Your task to perform on an android device: delete browsing data in the chrome app Image 0: 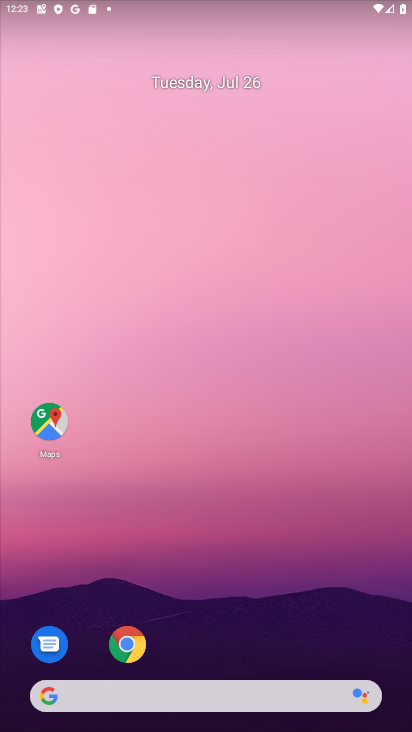
Step 0: click (141, 651)
Your task to perform on an android device: delete browsing data in the chrome app Image 1: 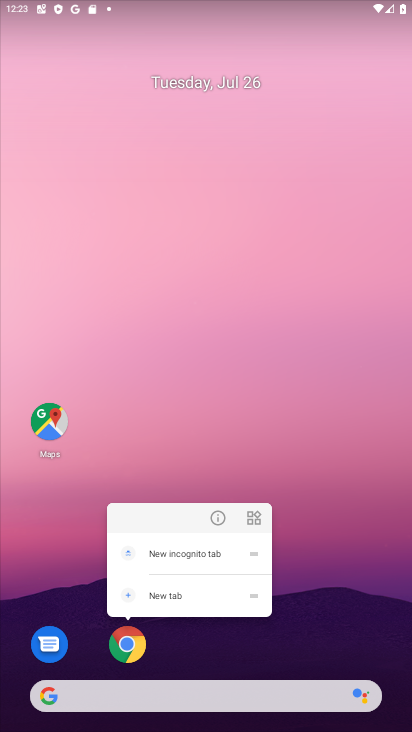
Step 1: click (139, 650)
Your task to perform on an android device: delete browsing data in the chrome app Image 2: 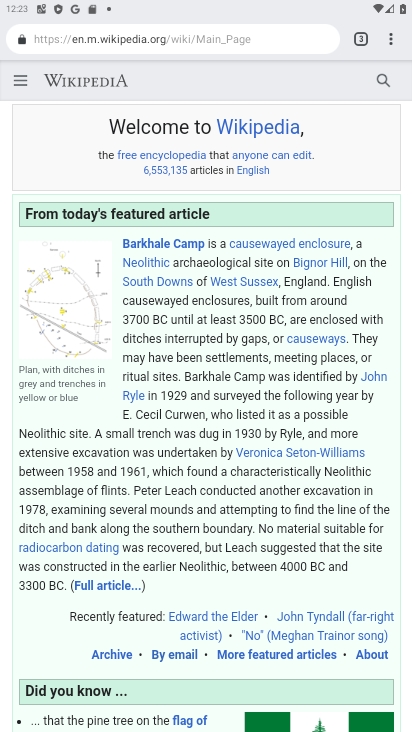
Step 2: drag from (393, 38) to (265, 471)
Your task to perform on an android device: delete browsing data in the chrome app Image 3: 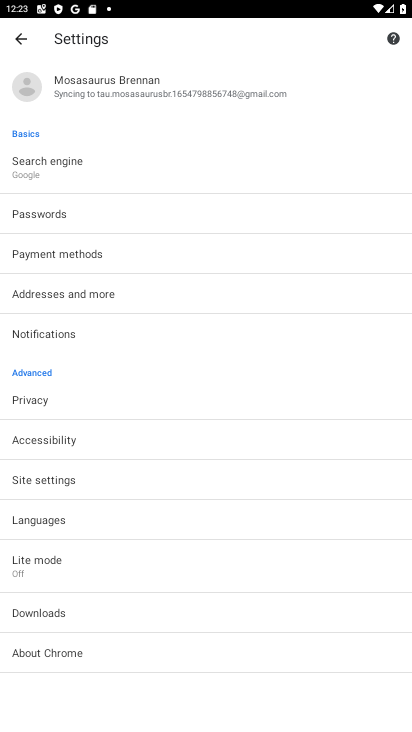
Step 3: click (64, 405)
Your task to perform on an android device: delete browsing data in the chrome app Image 4: 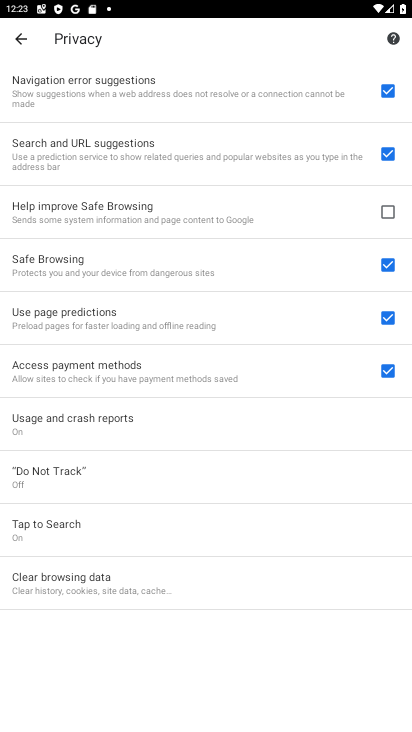
Step 4: click (89, 575)
Your task to perform on an android device: delete browsing data in the chrome app Image 5: 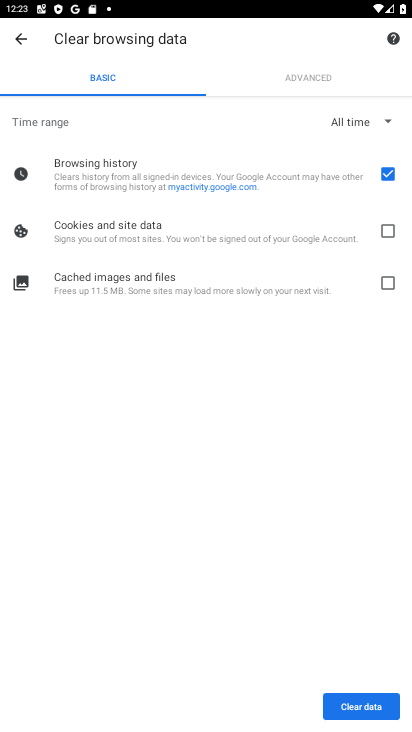
Step 5: click (342, 716)
Your task to perform on an android device: delete browsing data in the chrome app Image 6: 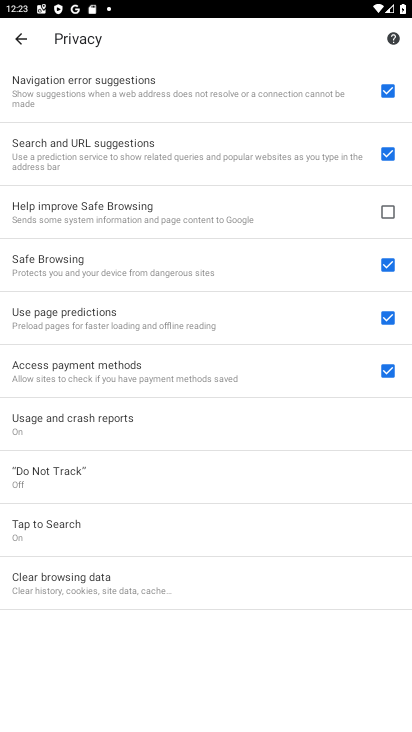
Step 6: task complete